Your task to perform on an android device: turn off javascript in the chrome app Image 0: 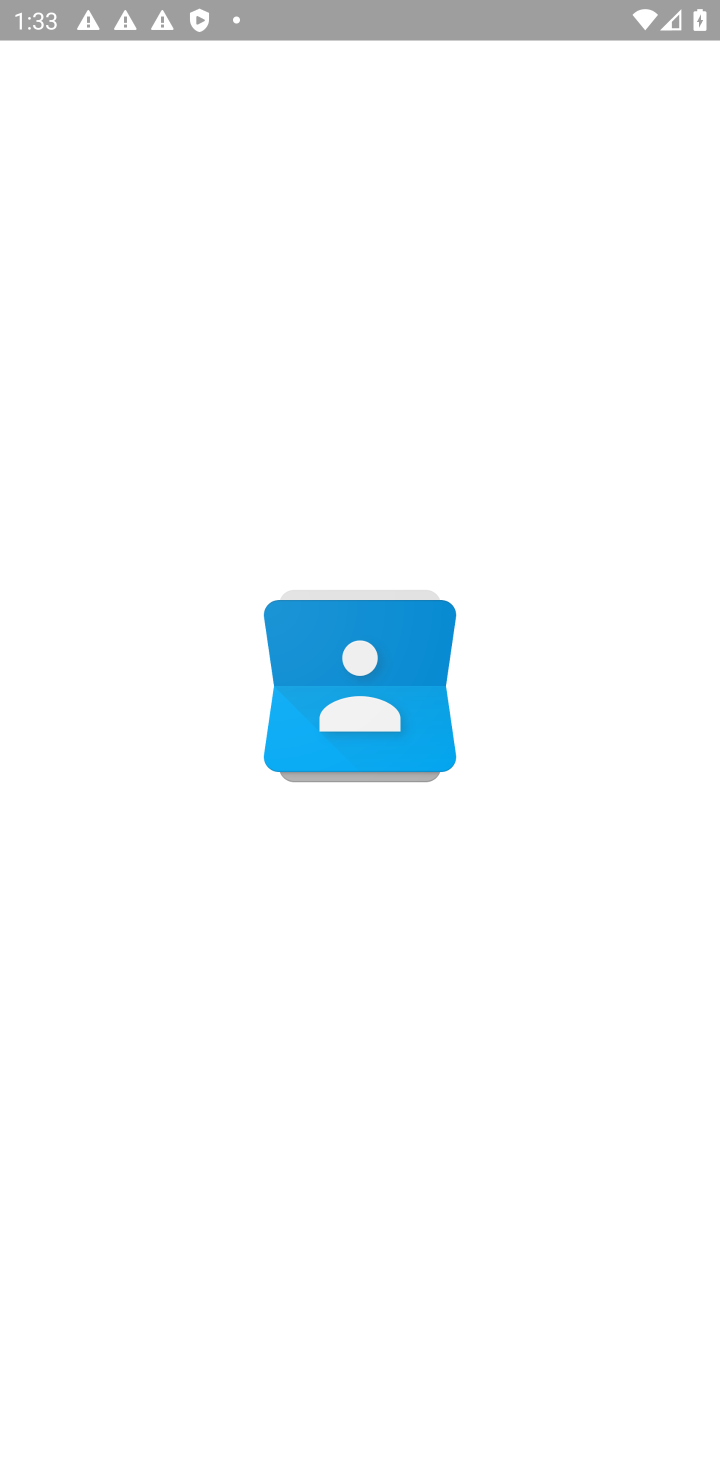
Step 0: press home button
Your task to perform on an android device: turn off javascript in the chrome app Image 1: 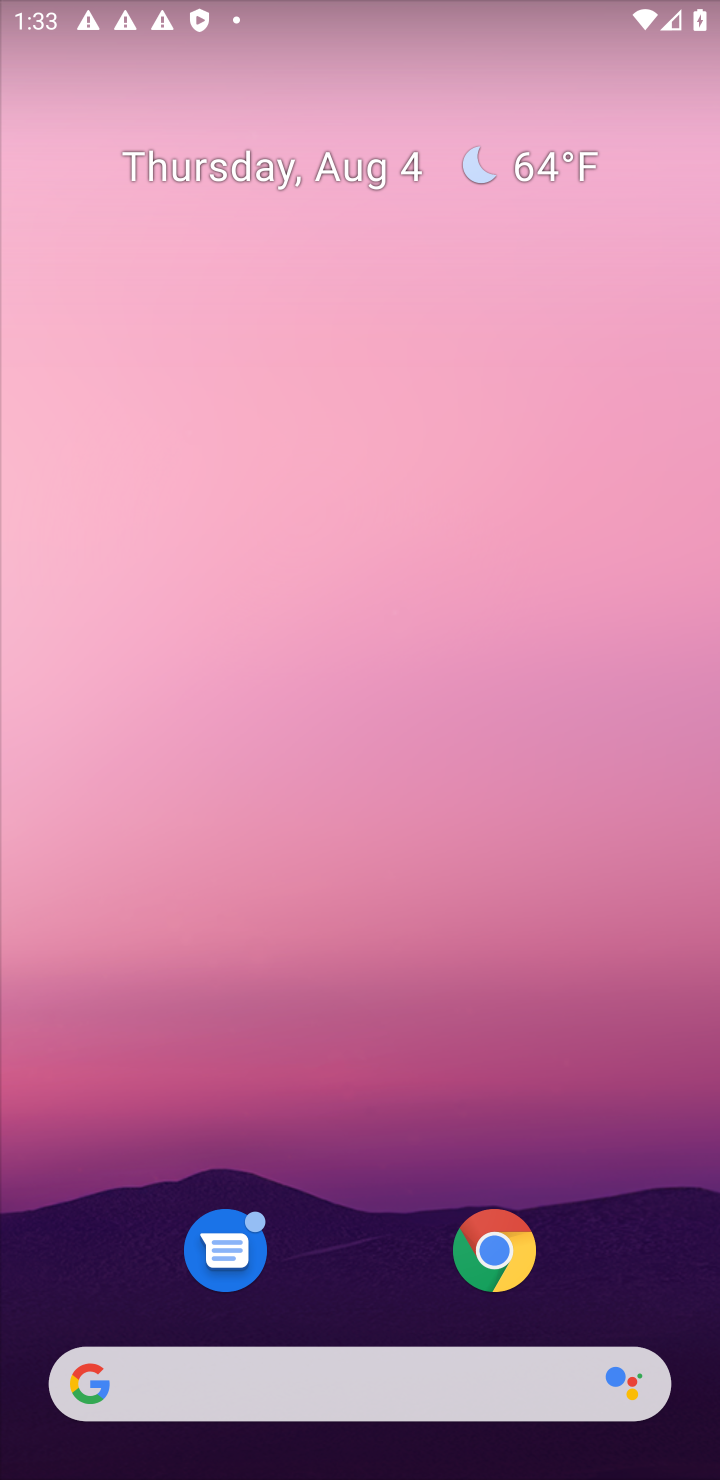
Step 1: drag from (337, 1195) to (337, 249)
Your task to perform on an android device: turn off javascript in the chrome app Image 2: 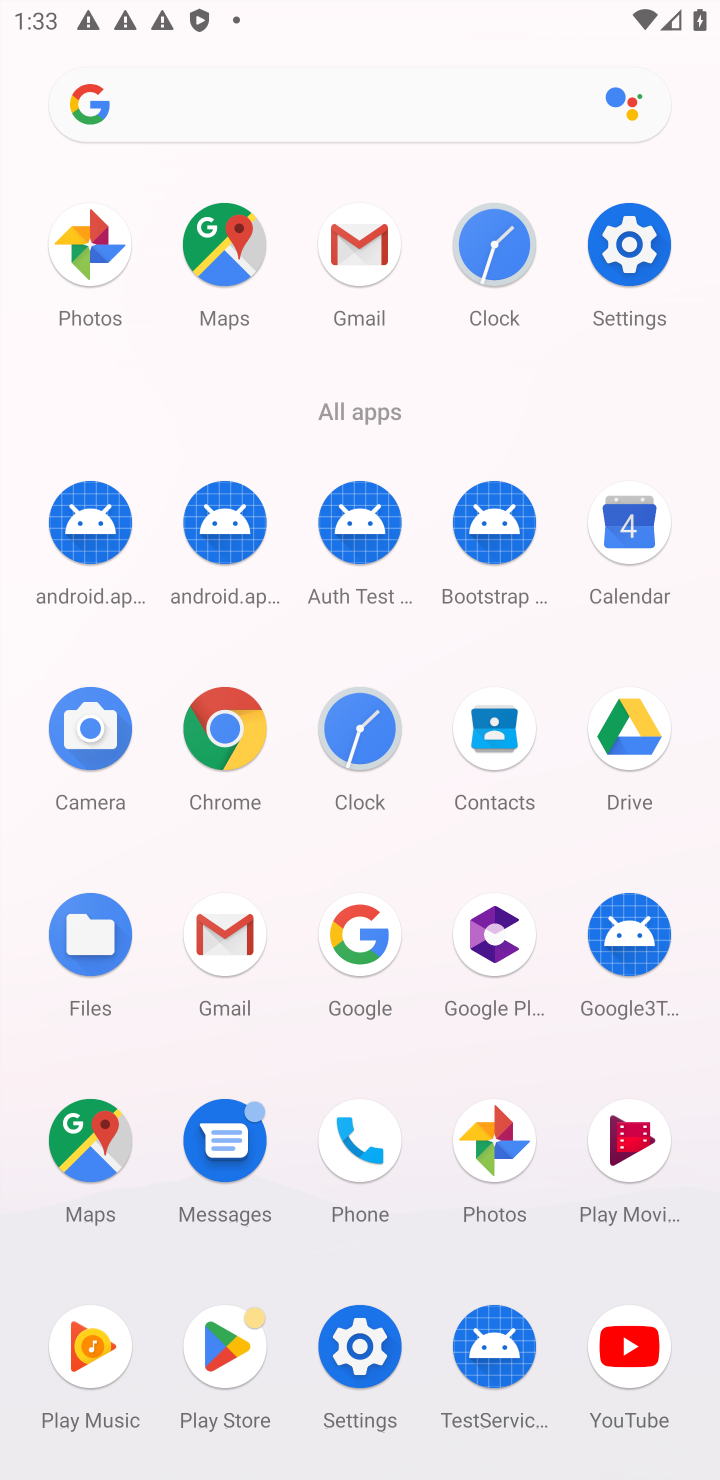
Step 2: click (225, 733)
Your task to perform on an android device: turn off javascript in the chrome app Image 3: 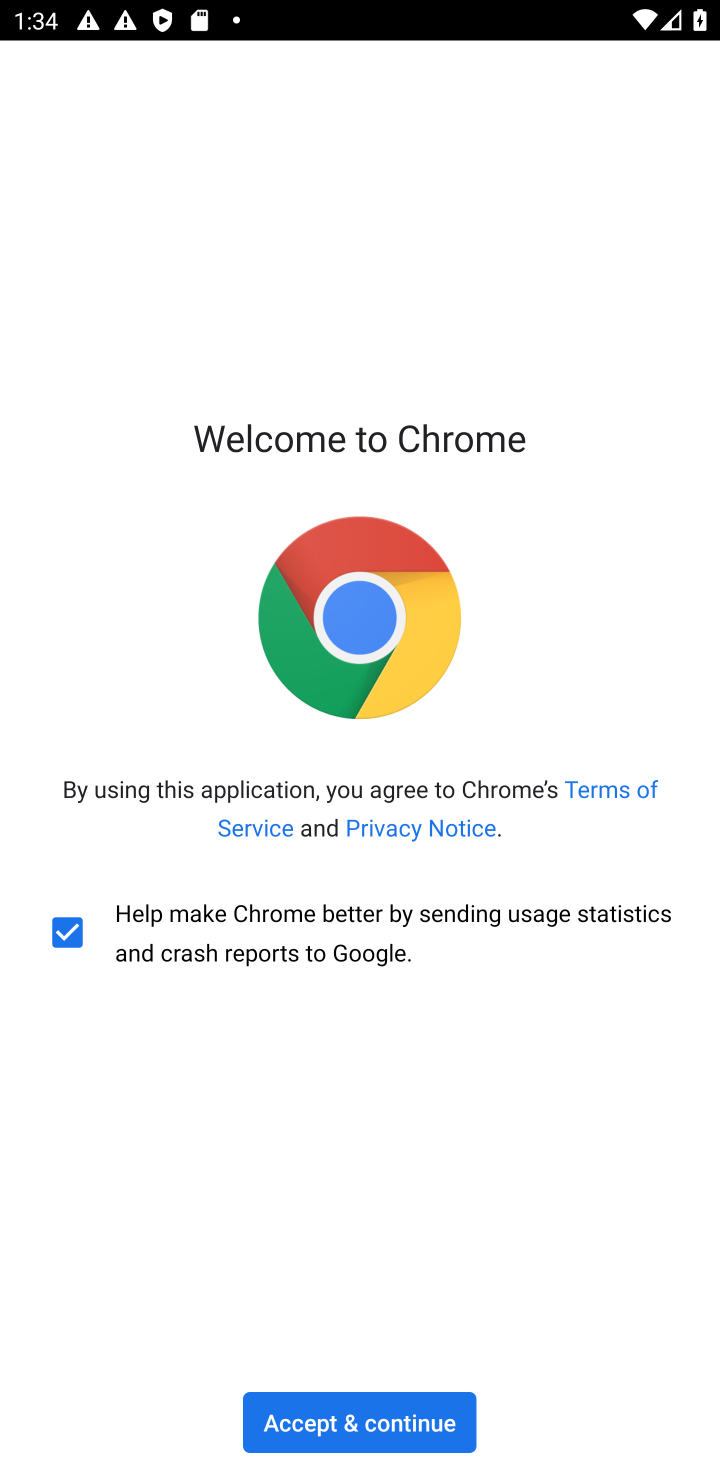
Step 3: click (359, 1407)
Your task to perform on an android device: turn off javascript in the chrome app Image 4: 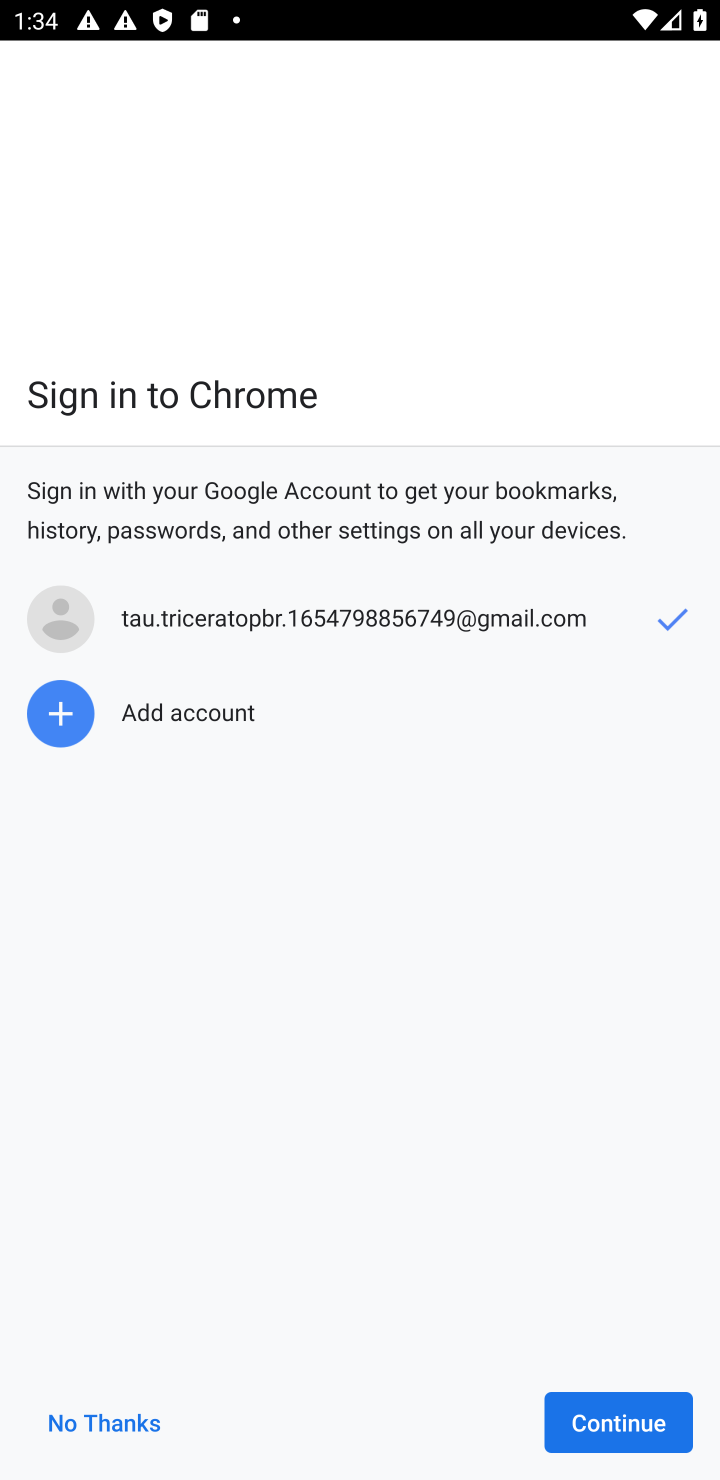
Step 4: click (627, 1407)
Your task to perform on an android device: turn off javascript in the chrome app Image 5: 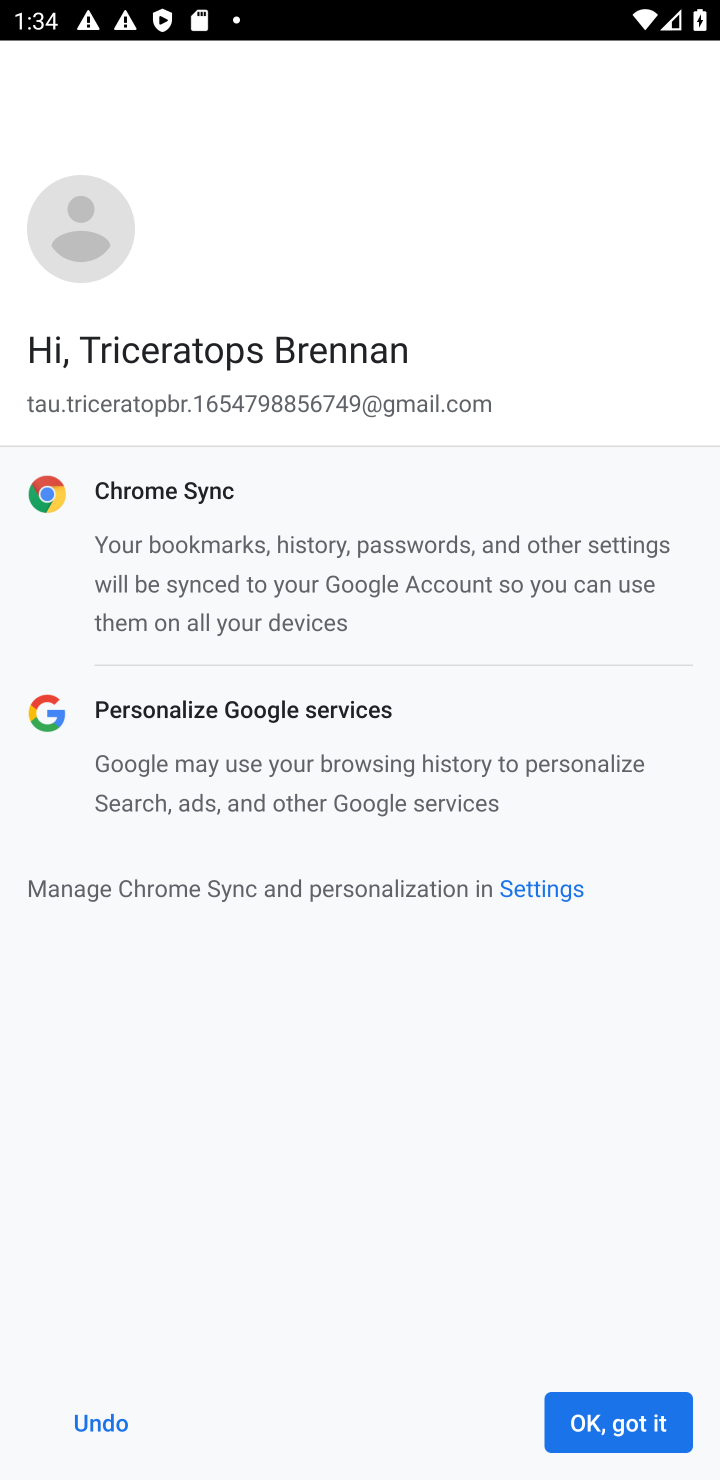
Step 5: click (609, 1421)
Your task to perform on an android device: turn off javascript in the chrome app Image 6: 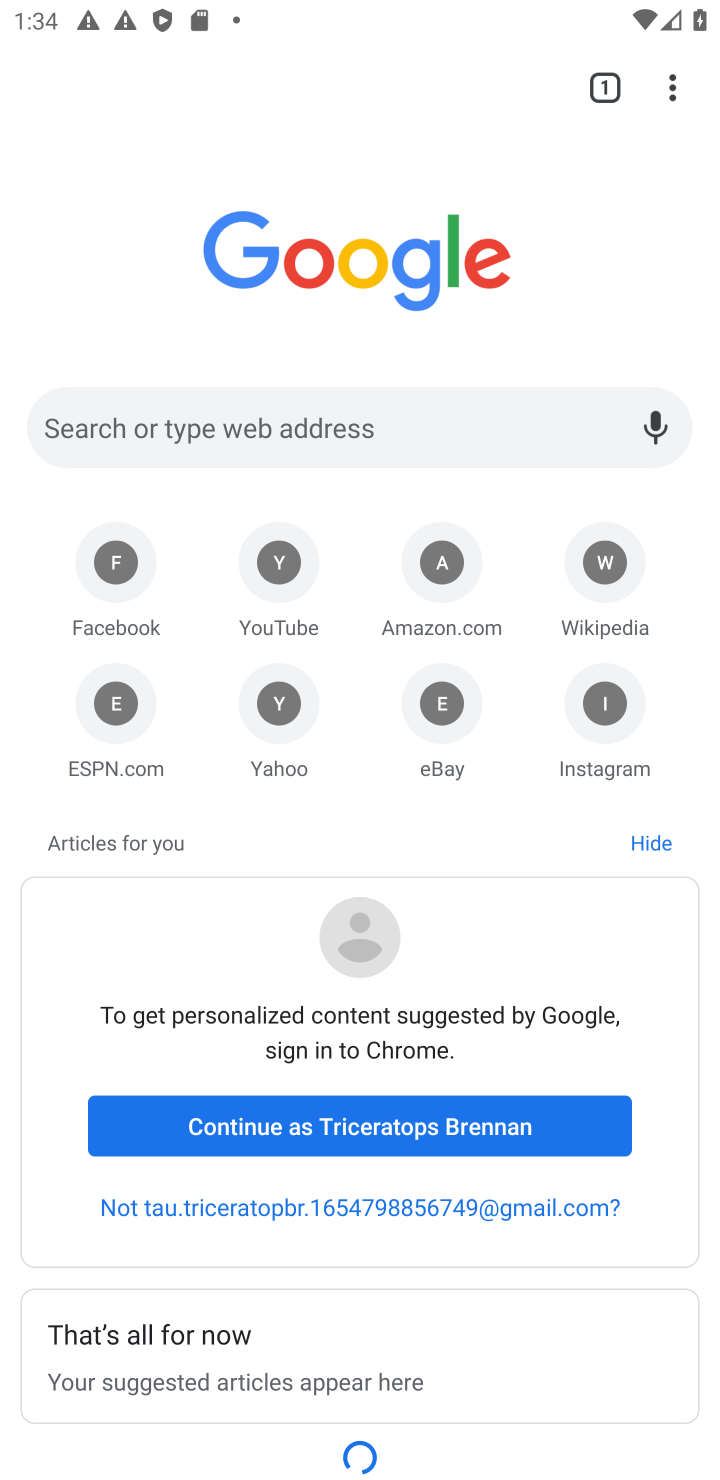
Step 6: click (683, 77)
Your task to perform on an android device: turn off javascript in the chrome app Image 7: 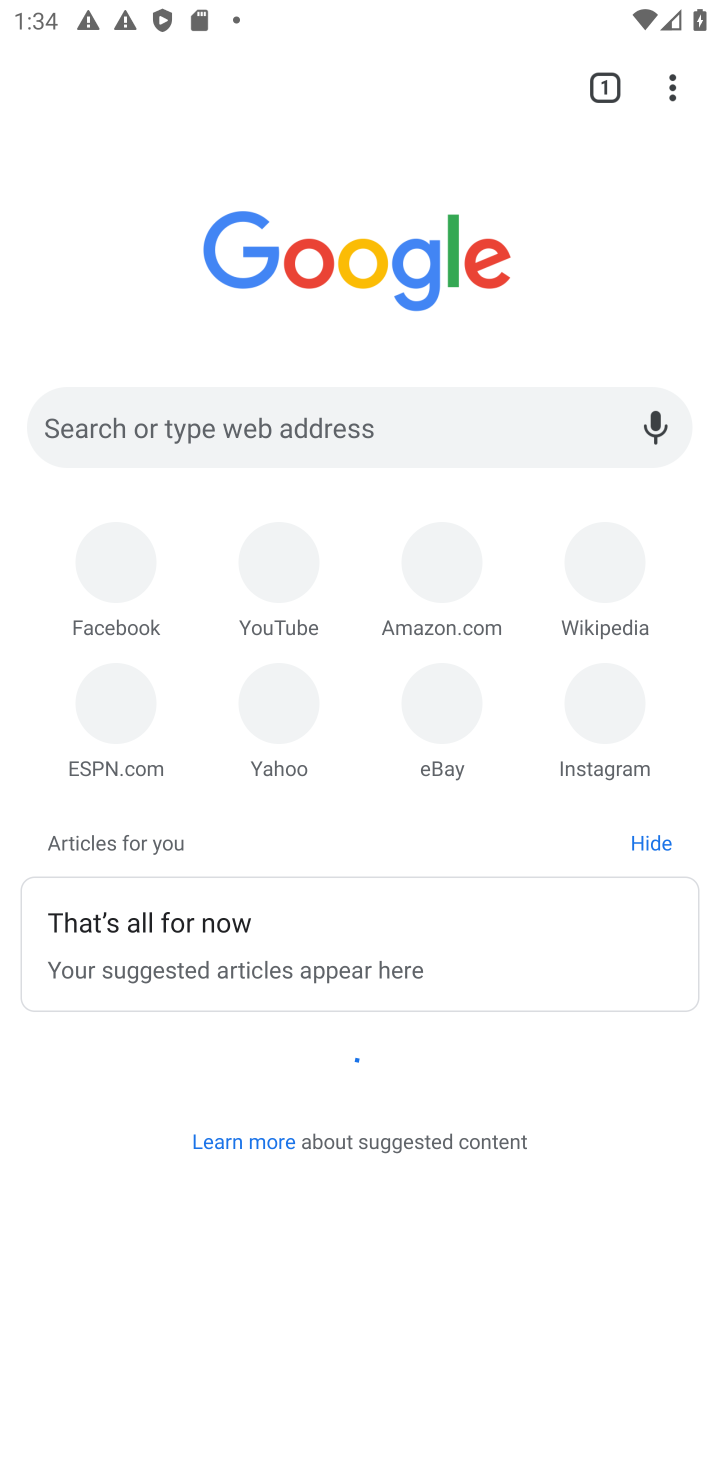
Step 7: click (673, 96)
Your task to perform on an android device: turn off javascript in the chrome app Image 8: 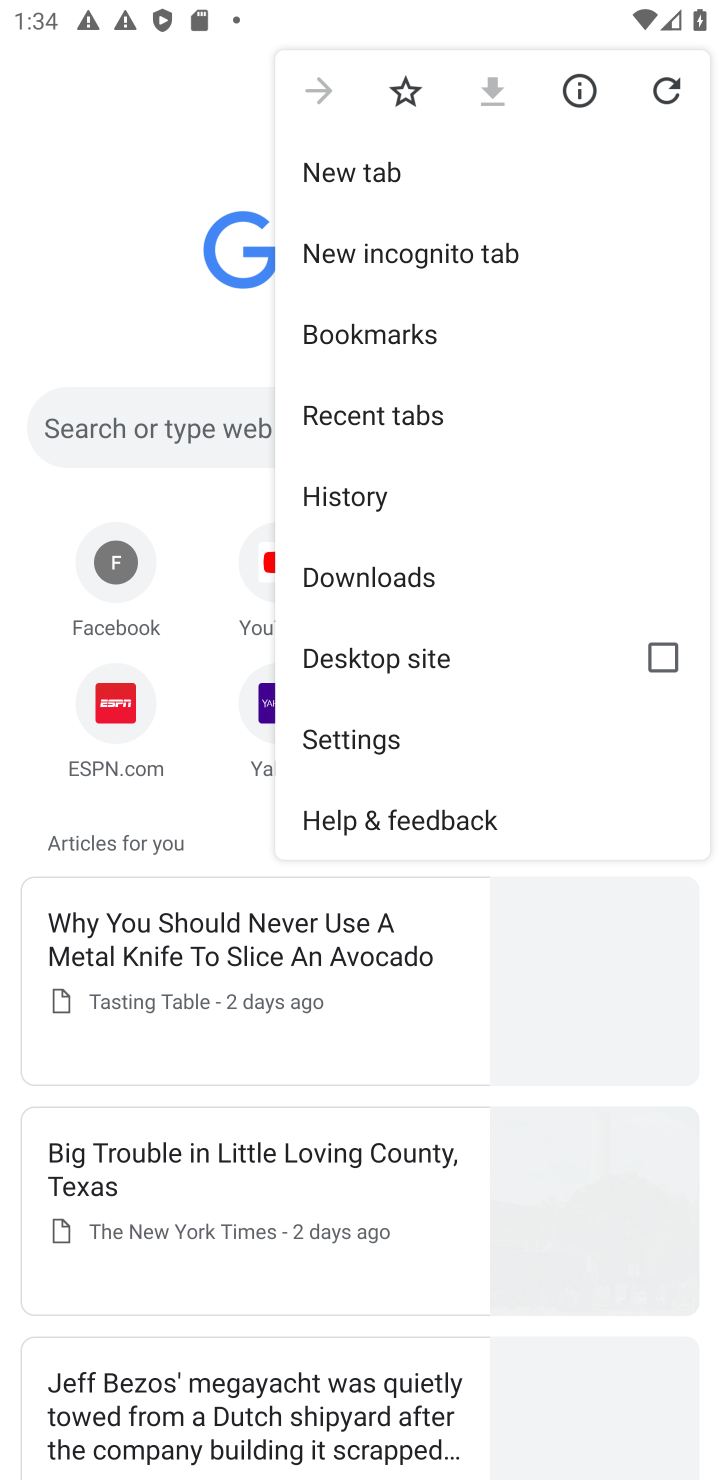
Step 8: click (422, 726)
Your task to perform on an android device: turn off javascript in the chrome app Image 9: 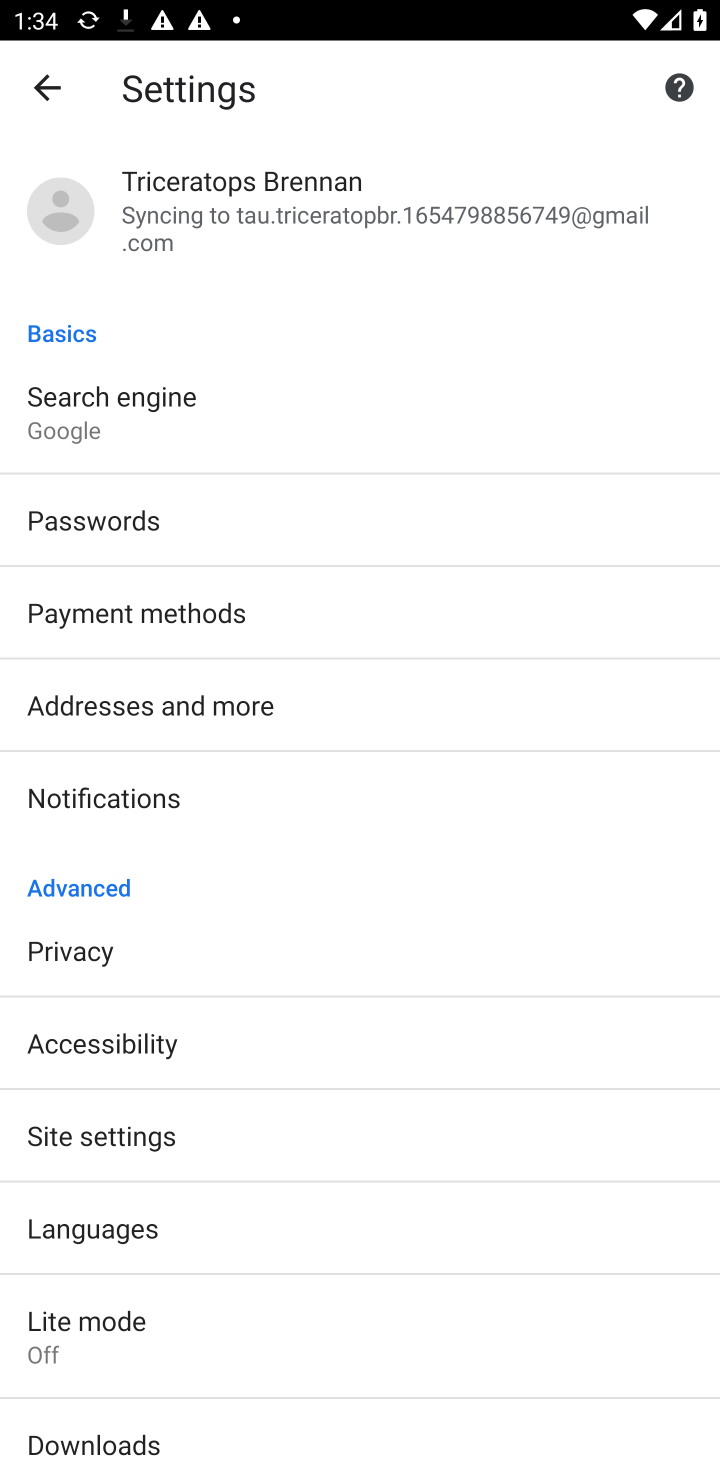
Step 9: click (280, 1124)
Your task to perform on an android device: turn off javascript in the chrome app Image 10: 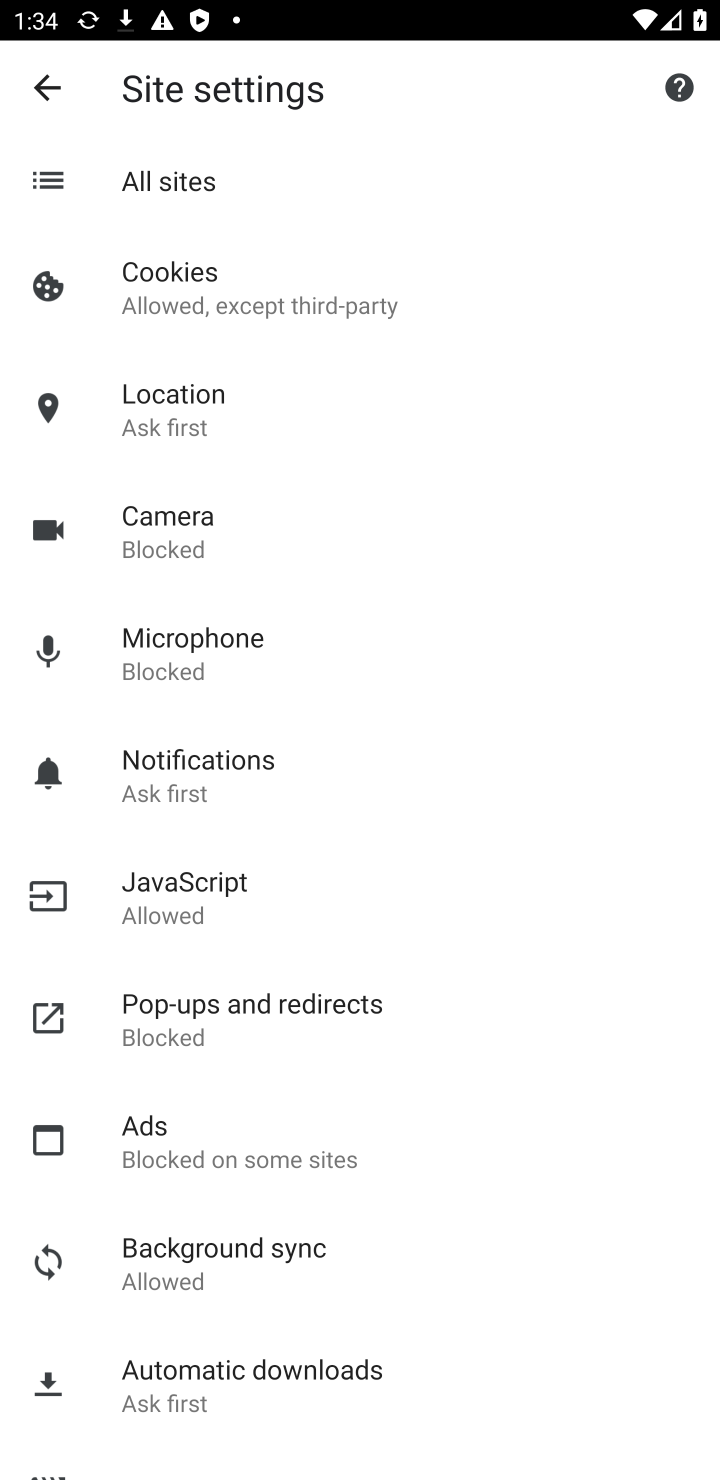
Step 10: click (229, 888)
Your task to perform on an android device: turn off javascript in the chrome app Image 11: 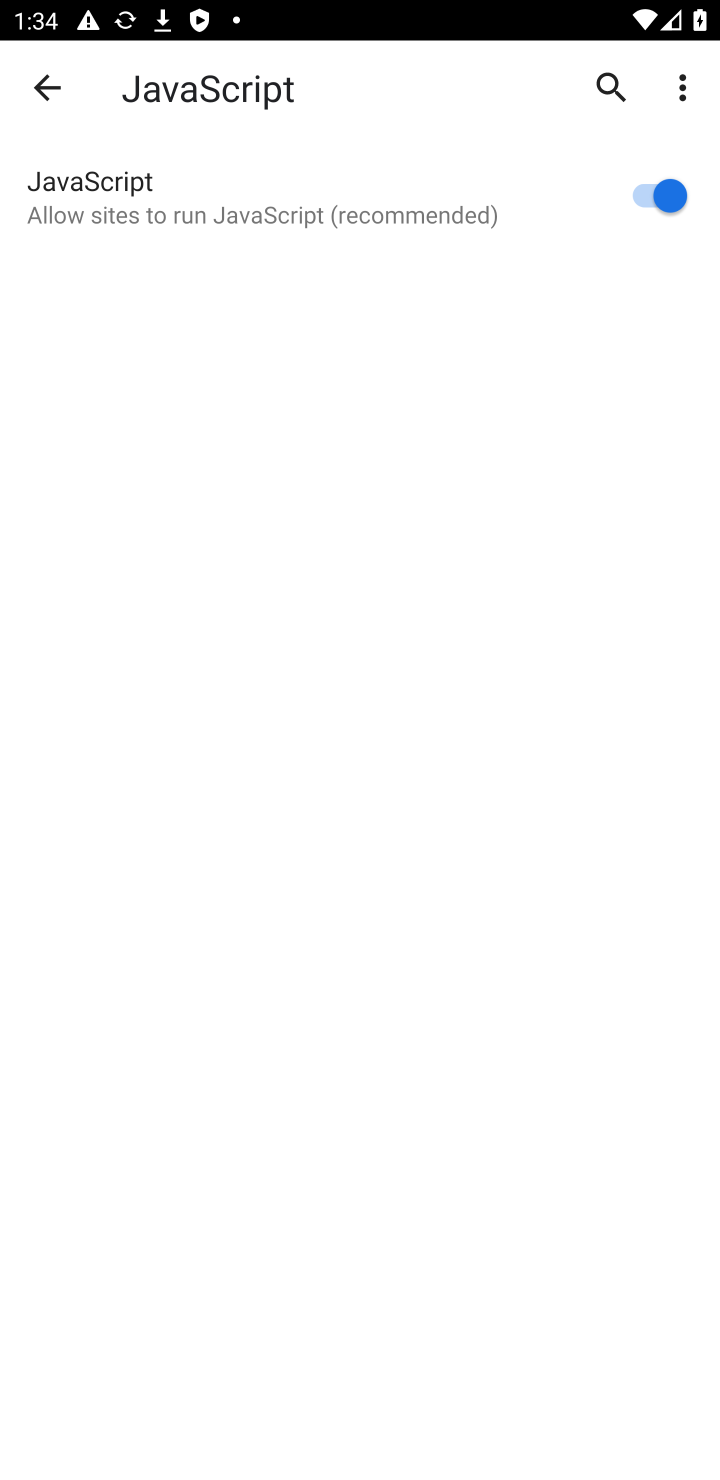
Step 11: click (623, 180)
Your task to perform on an android device: turn off javascript in the chrome app Image 12: 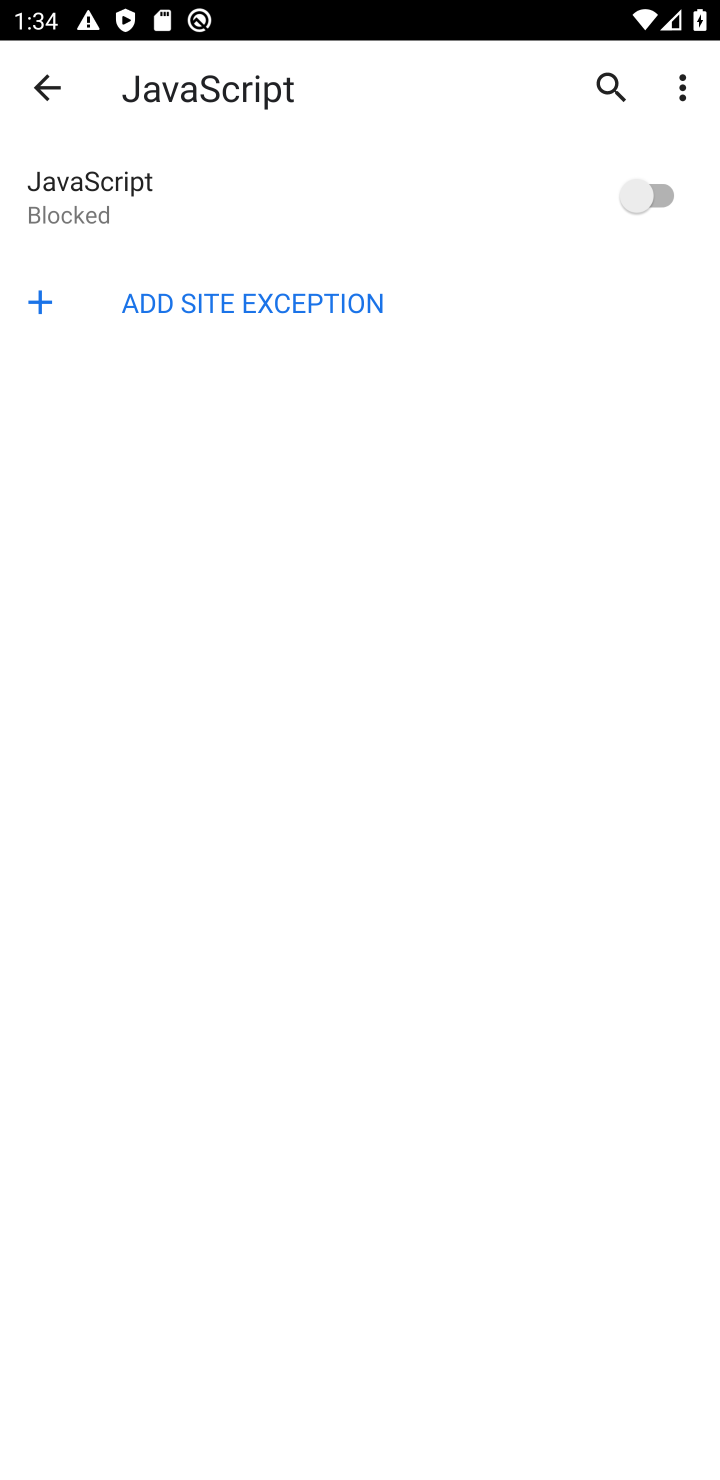
Step 12: task complete